Your task to perform on an android device: Open maps Image 0: 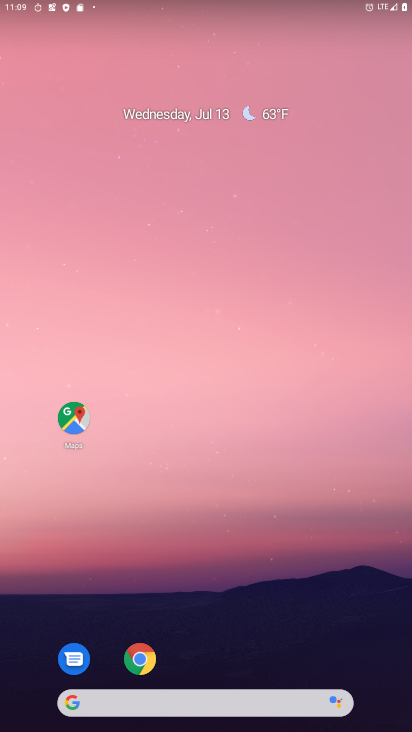
Step 0: click (80, 417)
Your task to perform on an android device: Open maps Image 1: 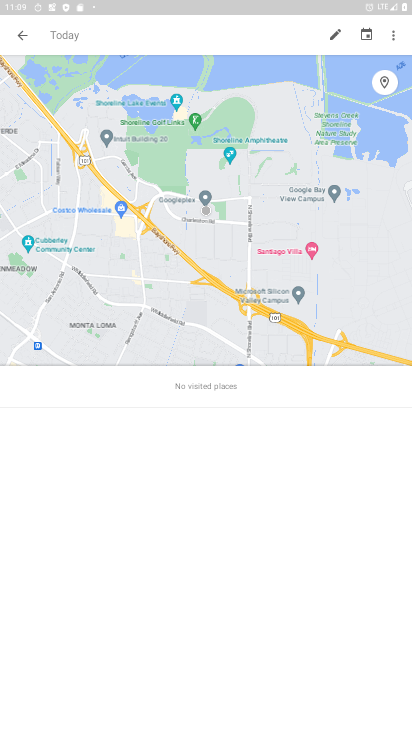
Step 1: task complete